Your task to perform on an android device: Go to display settings Image 0: 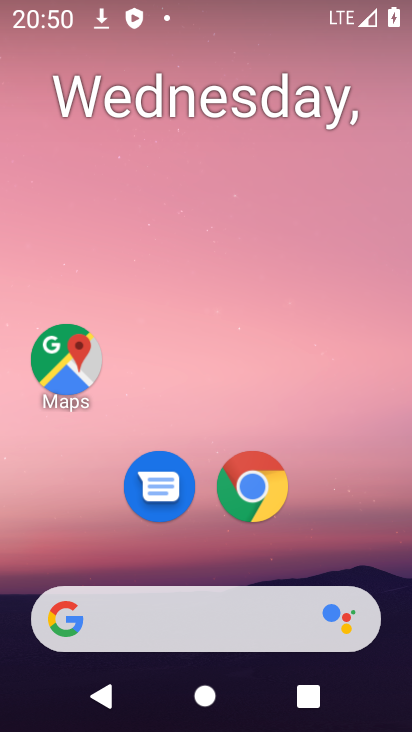
Step 0: drag from (114, 530) to (169, 11)
Your task to perform on an android device: Go to display settings Image 1: 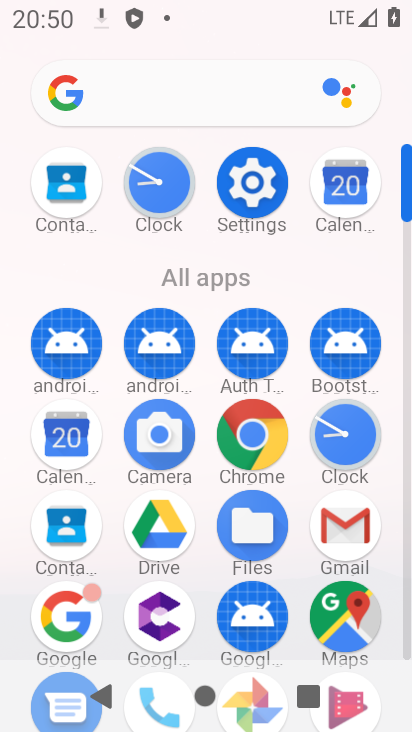
Step 1: click (254, 173)
Your task to perform on an android device: Go to display settings Image 2: 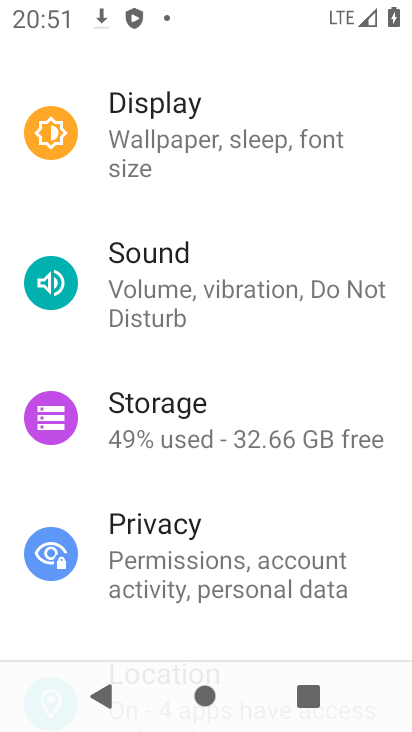
Step 2: click (191, 140)
Your task to perform on an android device: Go to display settings Image 3: 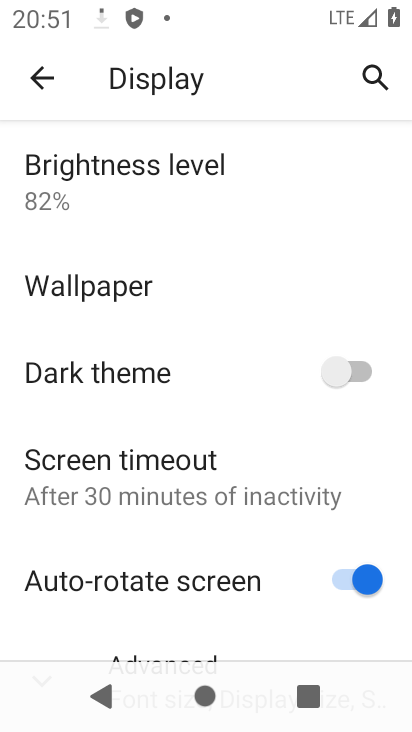
Step 3: task complete